Your task to perform on an android device: Search for Mexican restaurants on Maps Image 0: 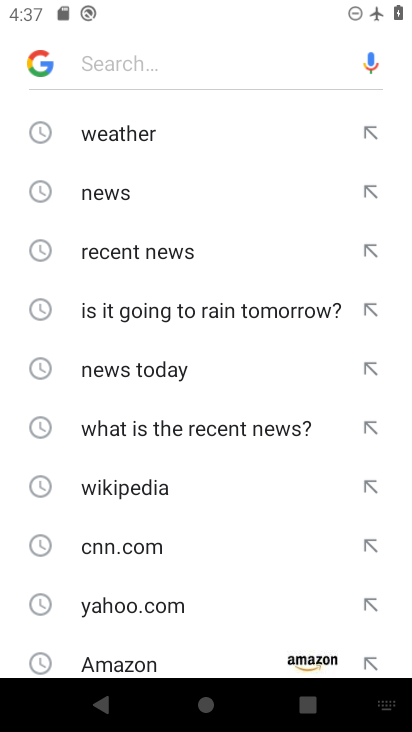
Step 0: press home button
Your task to perform on an android device: Search for Mexican restaurants on Maps Image 1: 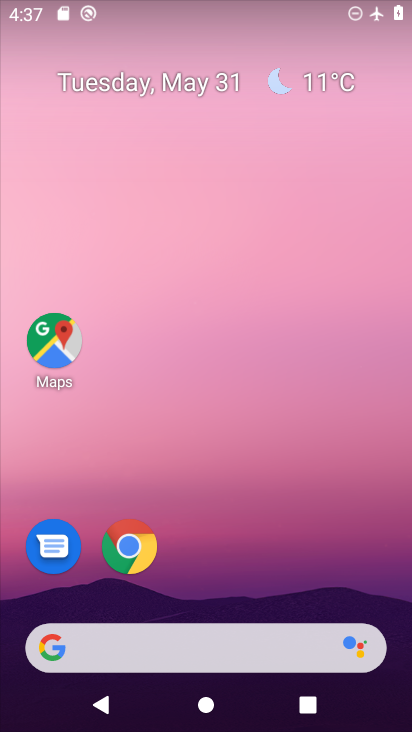
Step 1: drag from (282, 489) to (184, 77)
Your task to perform on an android device: Search for Mexican restaurants on Maps Image 2: 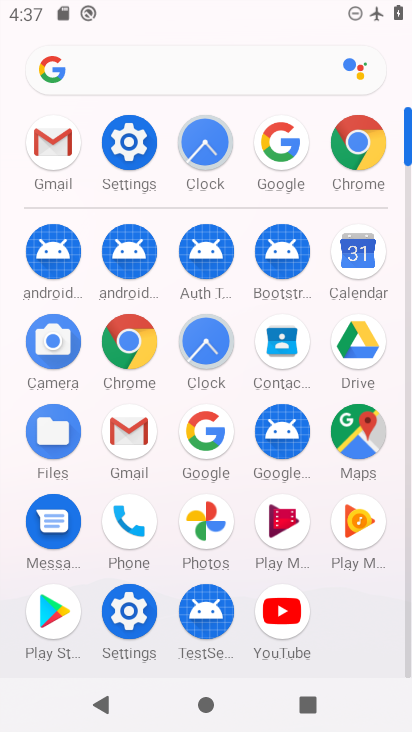
Step 2: click (359, 437)
Your task to perform on an android device: Search for Mexican restaurants on Maps Image 3: 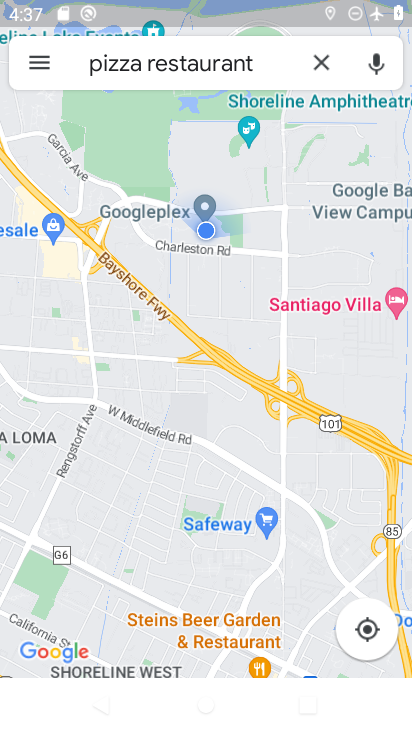
Step 3: click (315, 65)
Your task to perform on an android device: Search for Mexican restaurants on Maps Image 4: 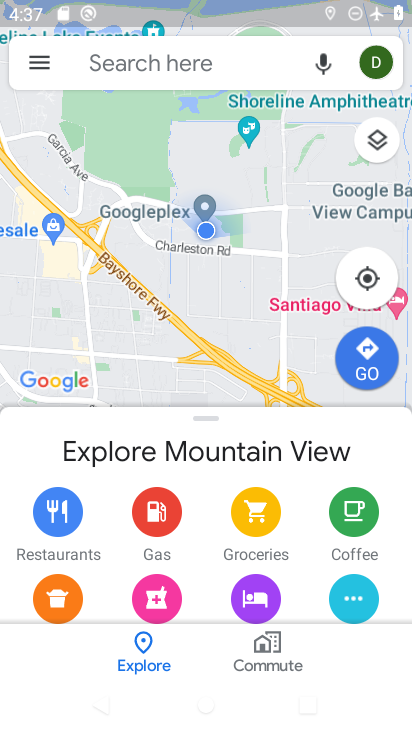
Step 4: click (165, 68)
Your task to perform on an android device: Search for Mexican restaurants on Maps Image 5: 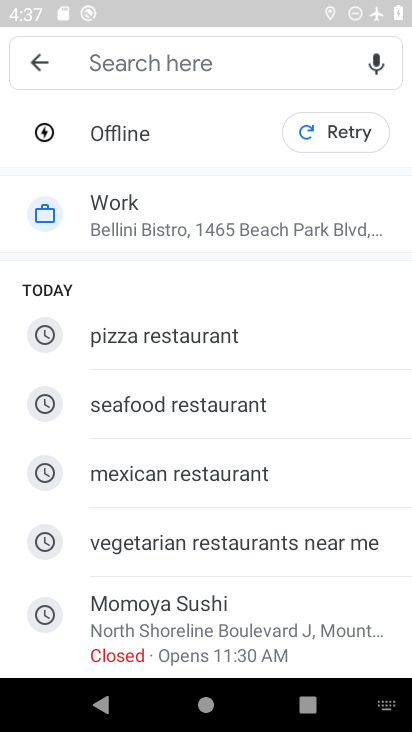
Step 5: click (180, 494)
Your task to perform on an android device: Search for Mexican restaurants on Maps Image 6: 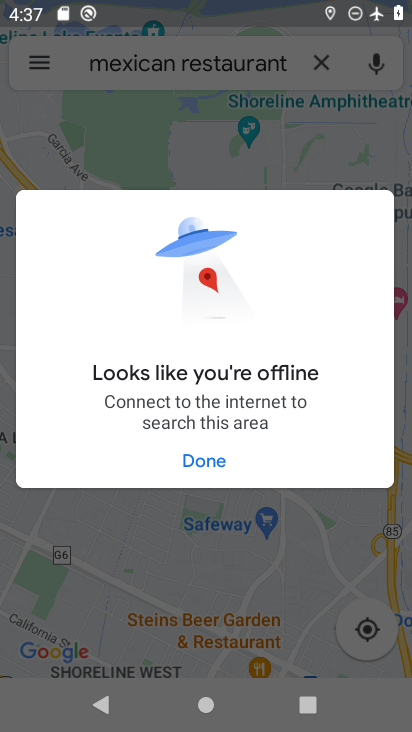
Step 6: click (200, 454)
Your task to perform on an android device: Search for Mexican restaurants on Maps Image 7: 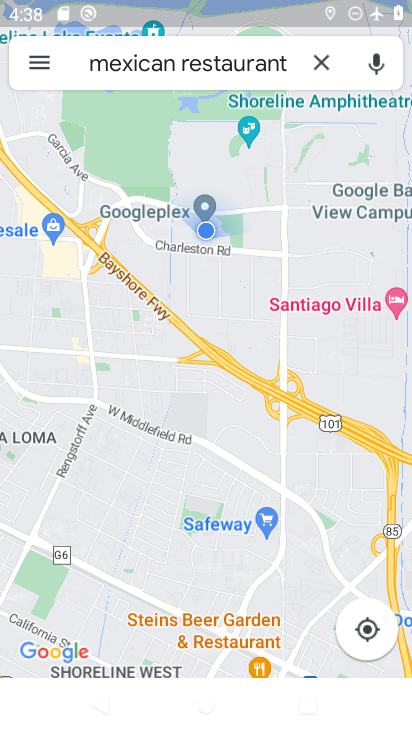
Step 7: press home button
Your task to perform on an android device: Search for Mexican restaurants on Maps Image 8: 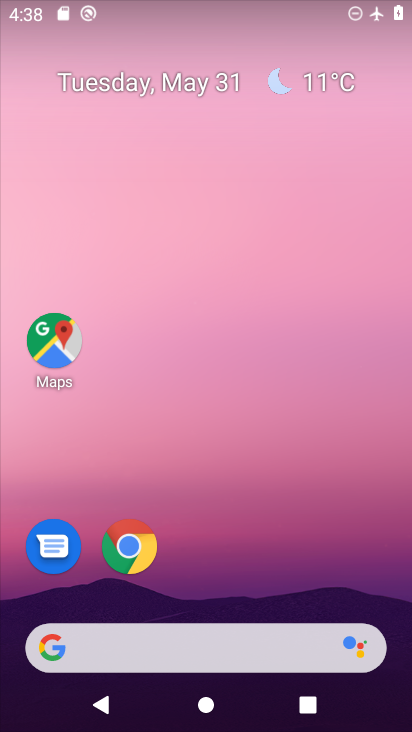
Step 8: drag from (270, 469) to (251, 1)
Your task to perform on an android device: Search for Mexican restaurants on Maps Image 9: 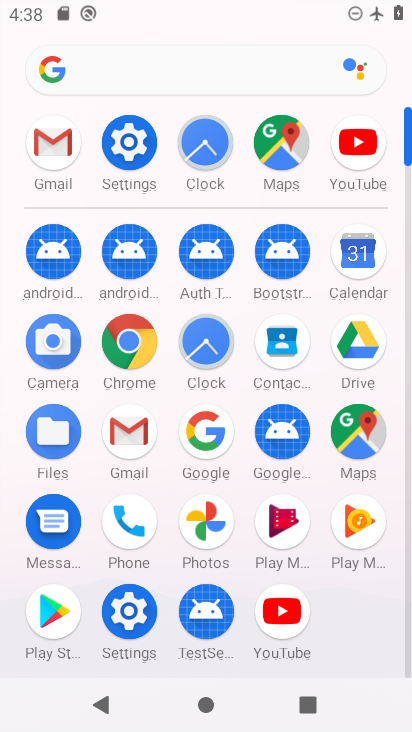
Step 9: click (120, 138)
Your task to perform on an android device: Search for Mexican restaurants on Maps Image 10: 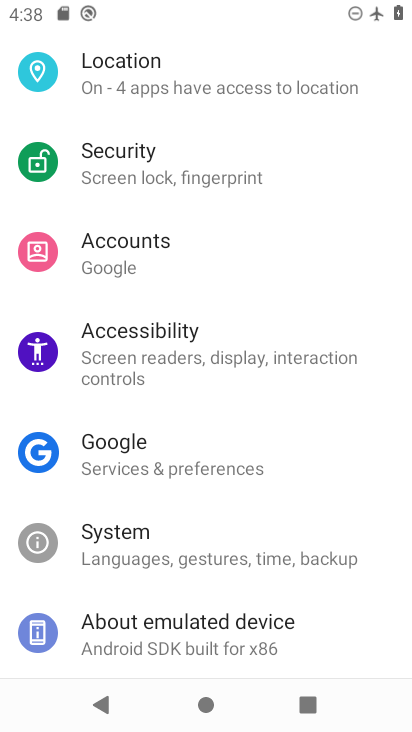
Step 10: drag from (211, 162) to (232, 613)
Your task to perform on an android device: Search for Mexican restaurants on Maps Image 11: 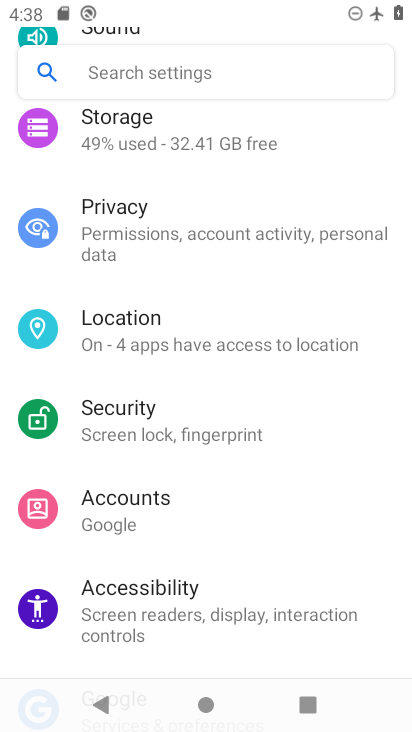
Step 11: drag from (211, 169) to (222, 631)
Your task to perform on an android device: Search for Mexican restaurants on Maps Image 12: 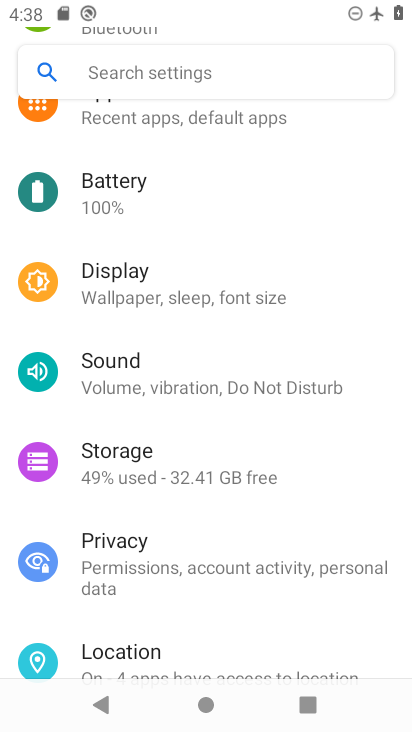
Step 12: drag from (223, 172) to (238, 633)
Your task to perform on an android device: Search for Mexican restaurants on Maps Image 13: 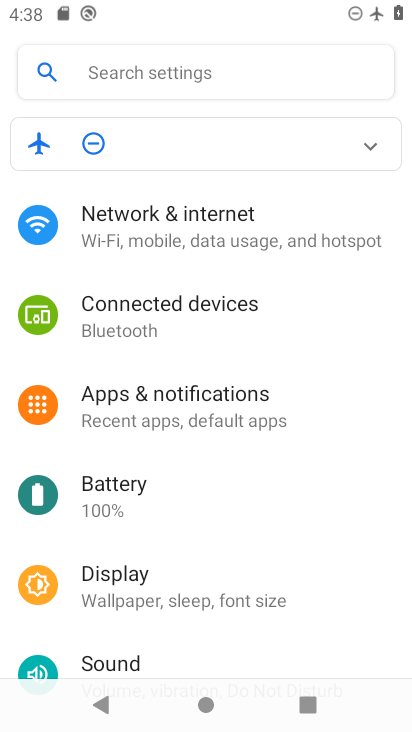
Step 13: click (202, 236)
Your task to perform on an android device: Search for Mexican restaurants on Maps Image 14: 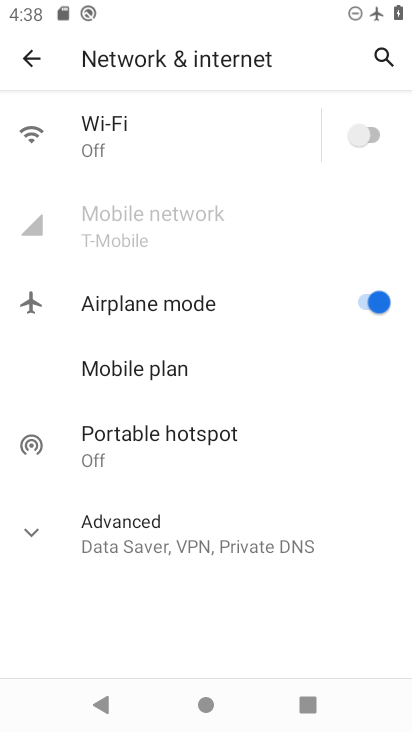
Step 14: click (357, 131)
Your task to perform on an android device: Search for Mexican restaurants on Maps Image 15: 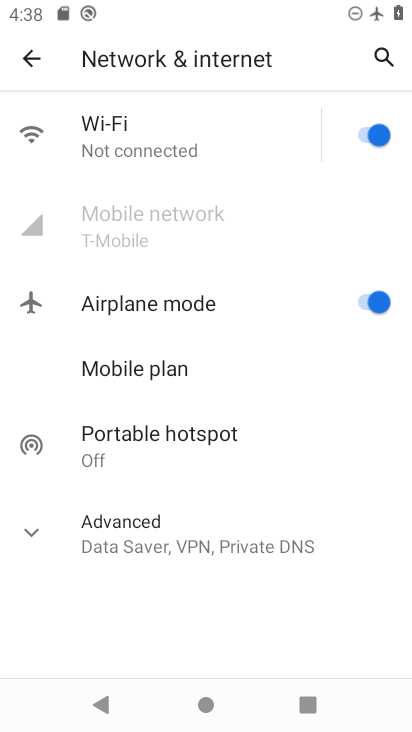
Step 15: press home button
Your task to perform on an android device: Search for Mexican restaurants on Maps Image 16: 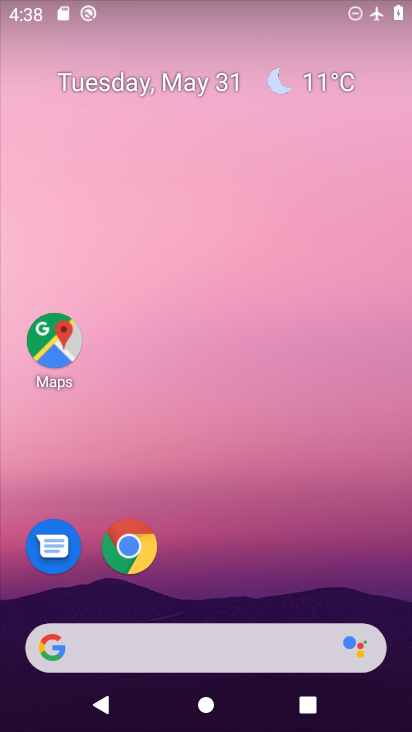
Step 16: click (54, 313)
Your task to perform on an android device: Search for Mexican restaurants on Maps Image 17: 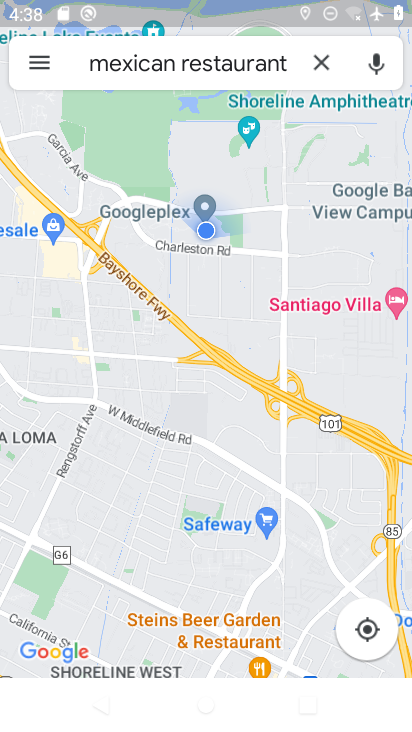
Step 17: click (281, 56)
Your task to perform on an android device: Search for Mexican restaurants on Maps Image 18: 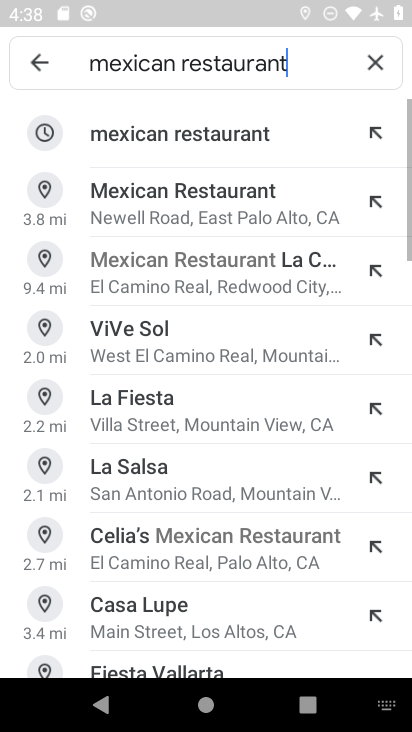
Step 18: click (242, 131)
Your task to perform on an android device: Search for Mexican restaurants on Maps Image 19: 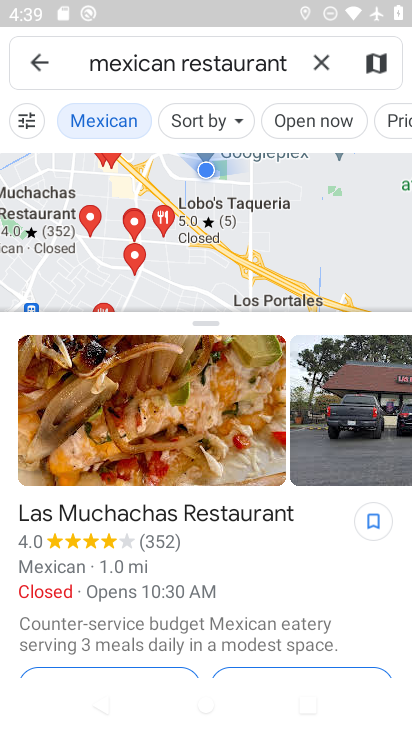
Step 19: task complete